Your task to perform on an android device: clear history in the chrome app Image 0: 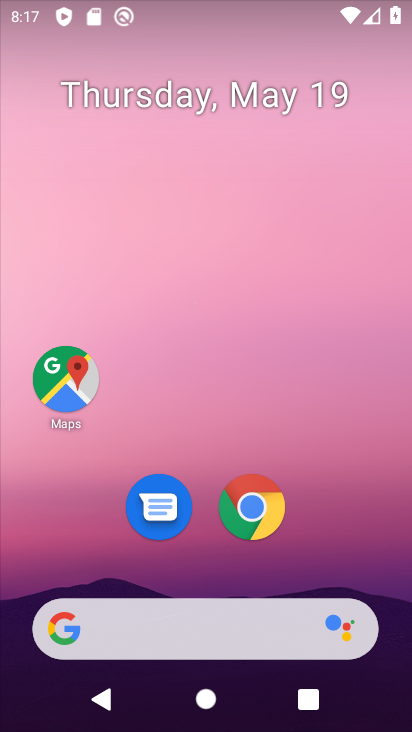
Step 0: click (248, 520)
Your task to perform on an android device: clear history in the chrome app Image 1: 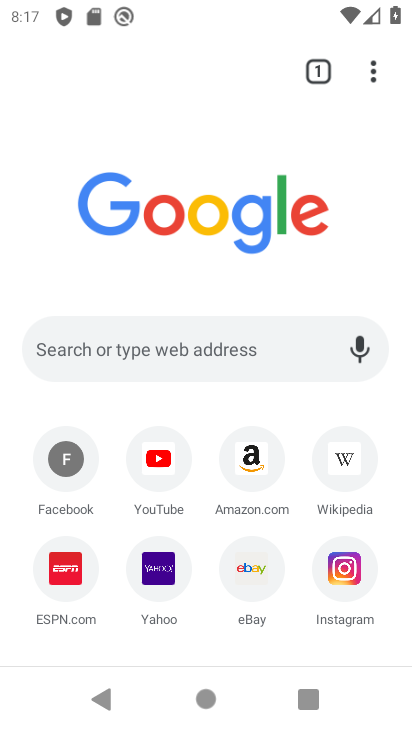
Step 1: click (375, 76)
Your task to perform on an android device: clear history in the chrome app Image 2: 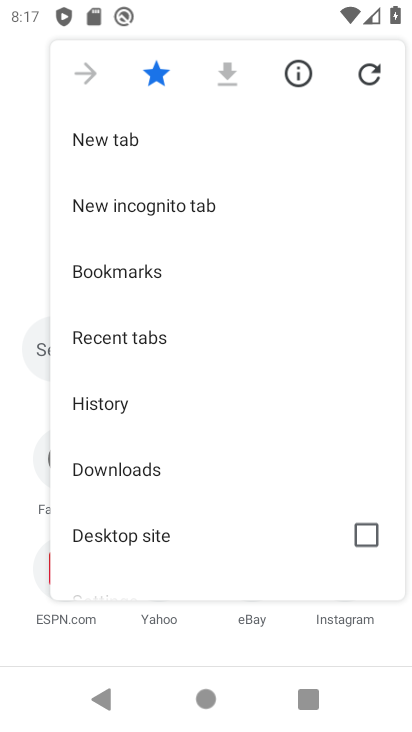
Step 2: click (91, 402)
Your task to perform on an android device: clear history in the chrome app Image 3: 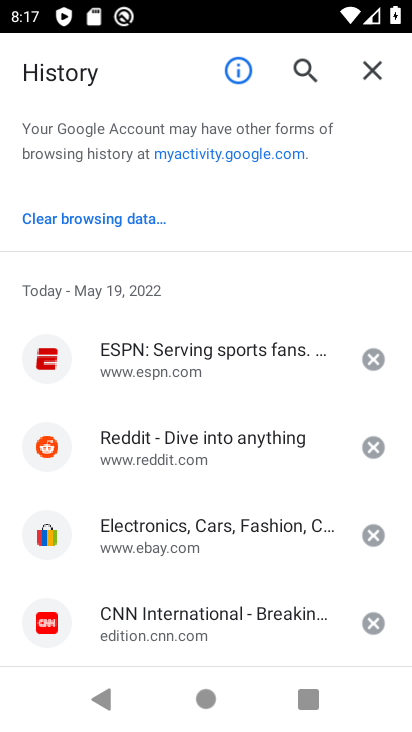
Step 3: click (75, 213)
Your task to perform on an android device: clear history in the chrome app Image 4: 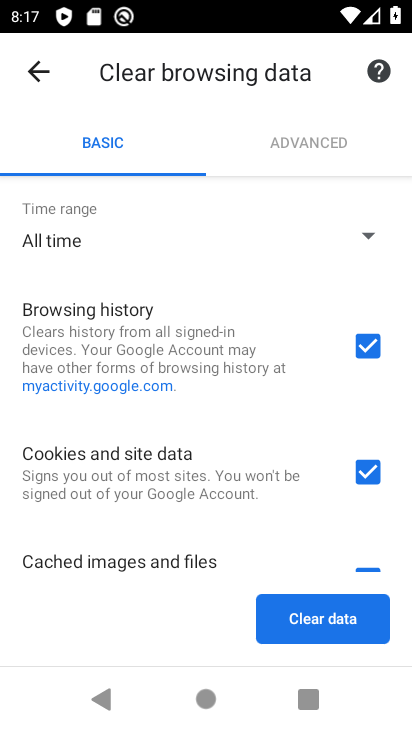
Step 4: drag from (278, 519) to (277, 400)
Your task to perform on an android device: clear history in the chrome app Image 5: 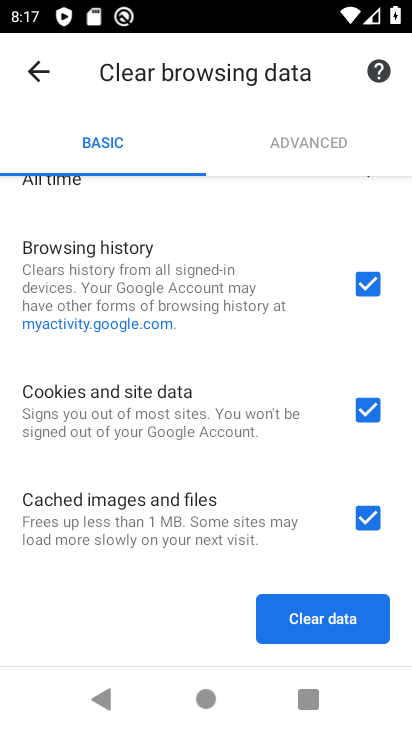
Step 5: click (369, 508)
Your task to perform on an android device: clear history in the chrome app Image 6: 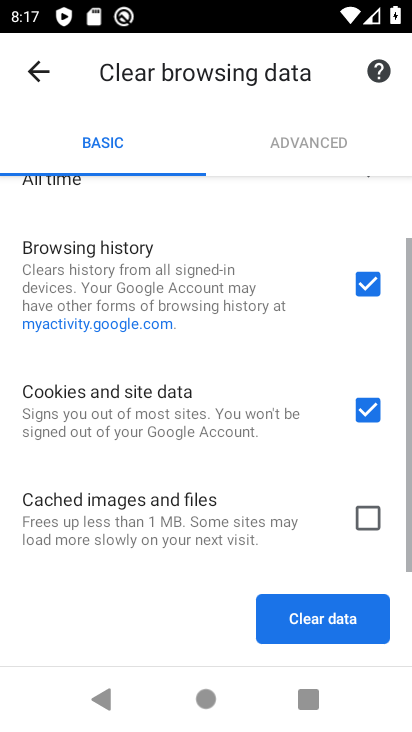
Step 6: click (377, 399)
Your task to perform on an android device: clear history in the chrome app Image 7: 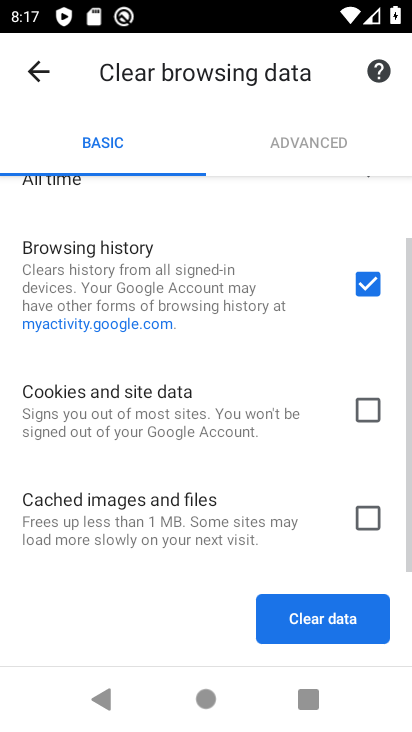
Step 7: click (312, 610)
Your task to perform on an android device: clear history in the chrome app Image 8: 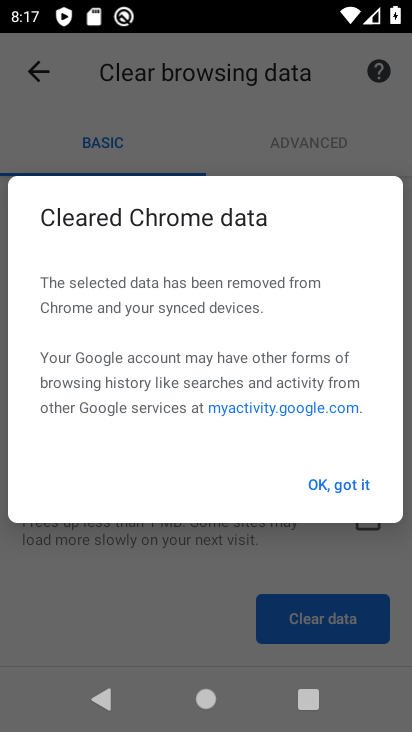
Step 8: click (346, 482)
Your task to perform on an android device: clear history in the chrome app Image 9: 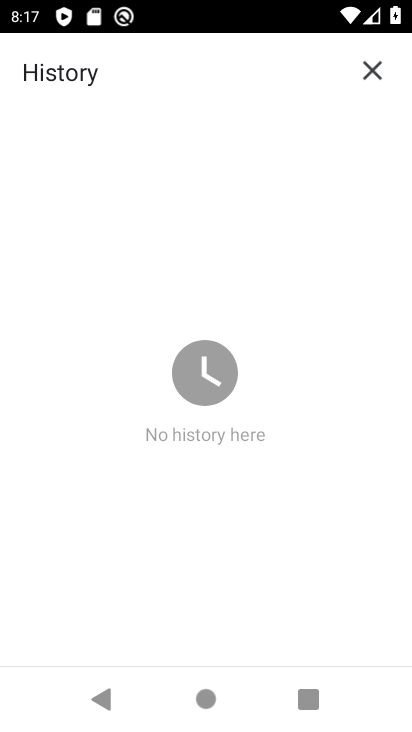
Step 9: task complete